Your task to perform on an android device: Open notification settings Image 0: 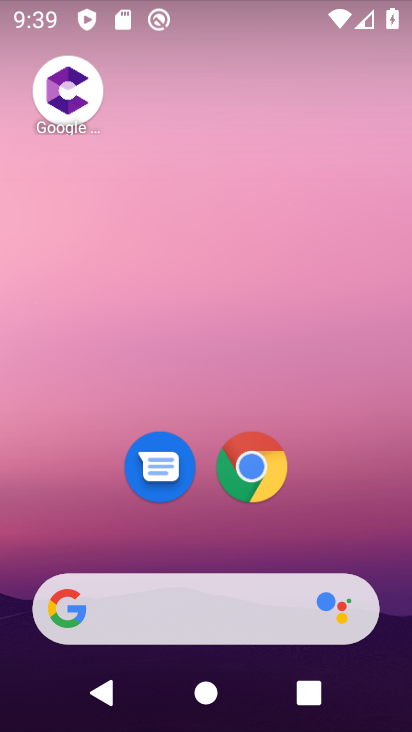
Step 0: drag from (366, 531) to (328, 268)
Your task to perform on an android device: Open notification settings Image 1: 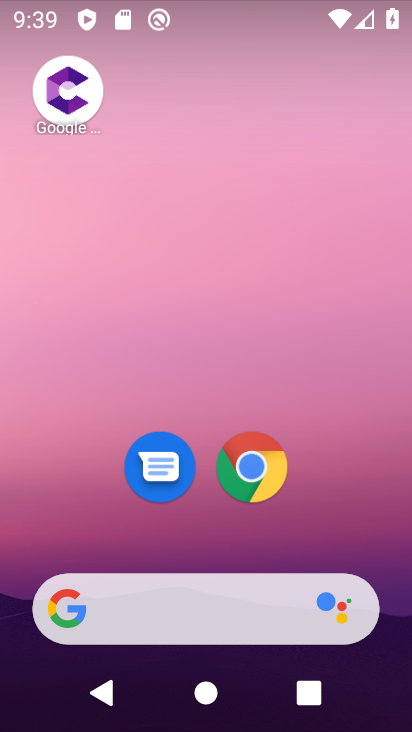
Step 1: drag from (363, 543) to (316, 264)
Your task to perform on an android device: Open notification settings Image 2: 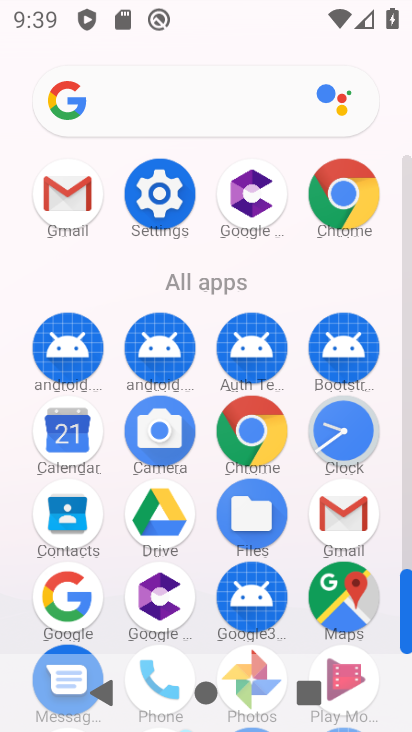
Step 2: click (173, 204)
Your task to perform on an android device: Open notification settings Image 3: 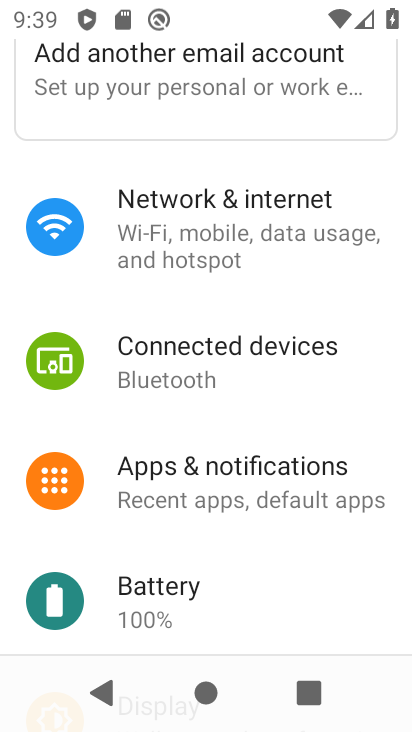
Step 3: click (227, 461)
Your task to perform on an android device: Open notification settings Image 4: 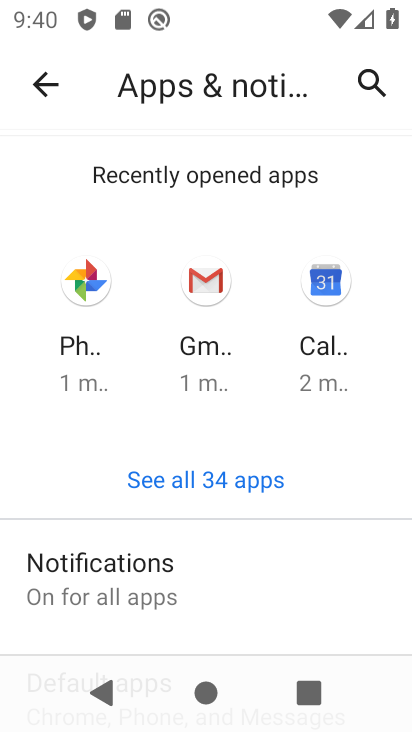
Step 4: drag from (263, 525) to (257, 228)
Your task to perform on an android device: Open notification settings Image 5: 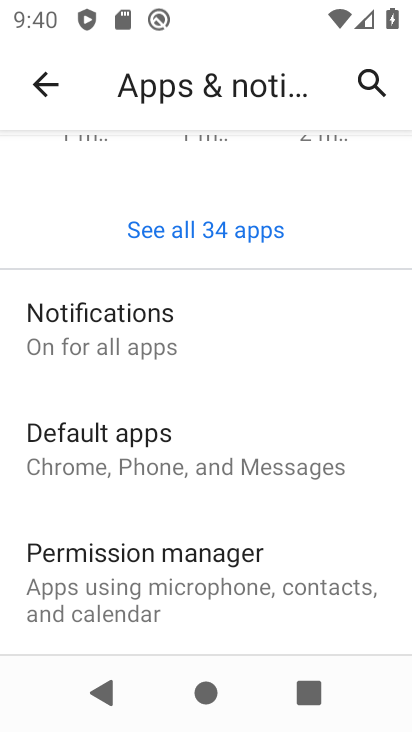
Step 5: click (252, 332)
Your task to perform on an android device: Open notification settings Image 6: 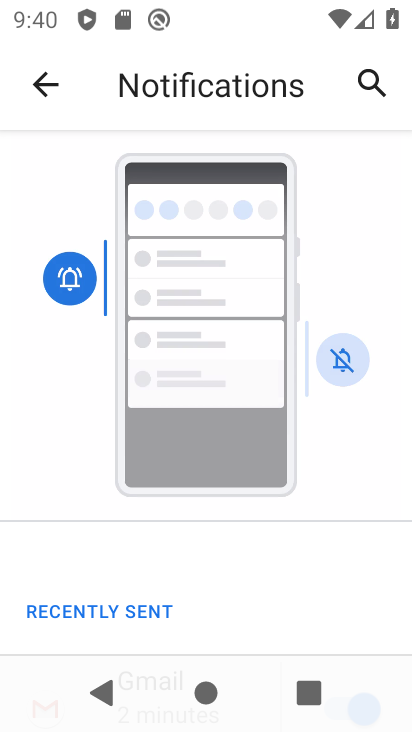
Step 6: drag from (245, 564) to (230, 132)
Your task to perform on an android device: Open notification settings Image 7: 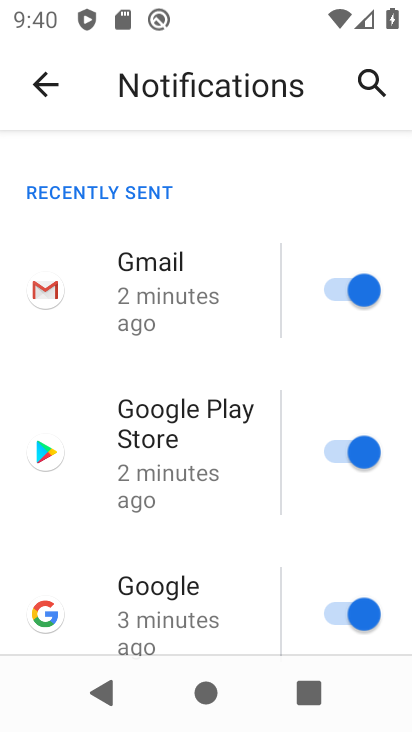
Step 7: drag from (213, 535) to (213, 202)
Your task to perform on an android device: Open notification settings Image 8: 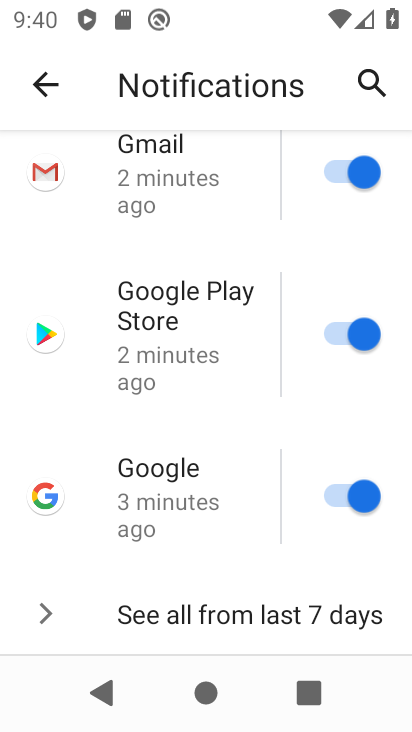
Step 8: drag from (252, 573) to (241, 296)
Your task to perform on an android device: Open notification settings Image 9: 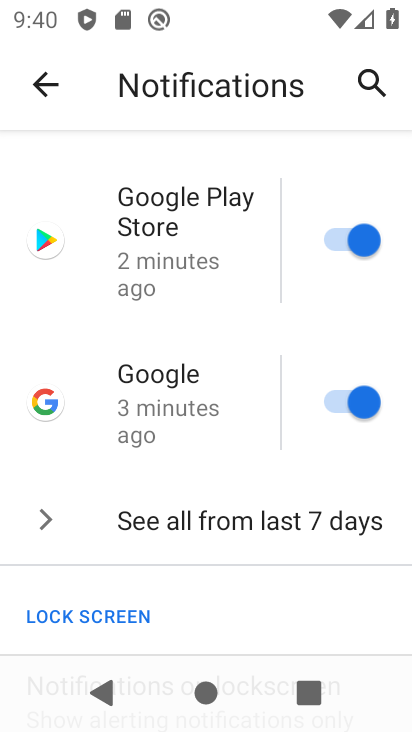
Step 9: drag from (267, 586) to (259, 276)
Your task to perform on an android device: Open notification settings Image 10: 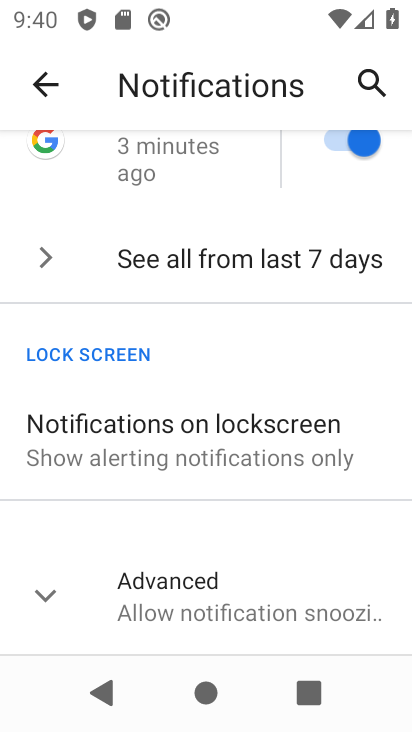
Step 10: click (278, 581)
Your task to perform on an android device: Open notification settings Image 11: 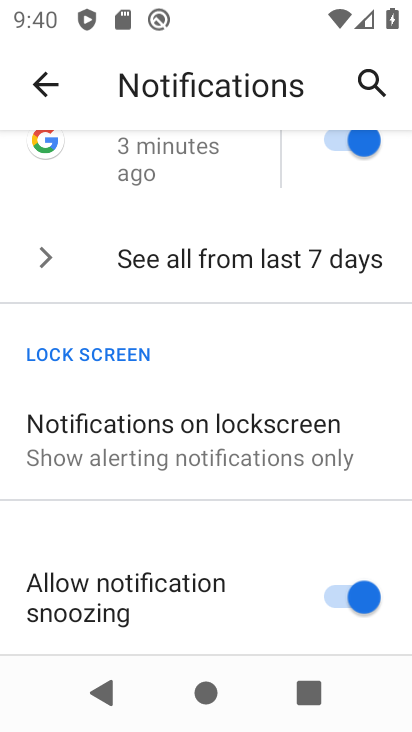
Step 11: task complete